Your task to perform on an android device: turn off notifications in google photos Image 0: 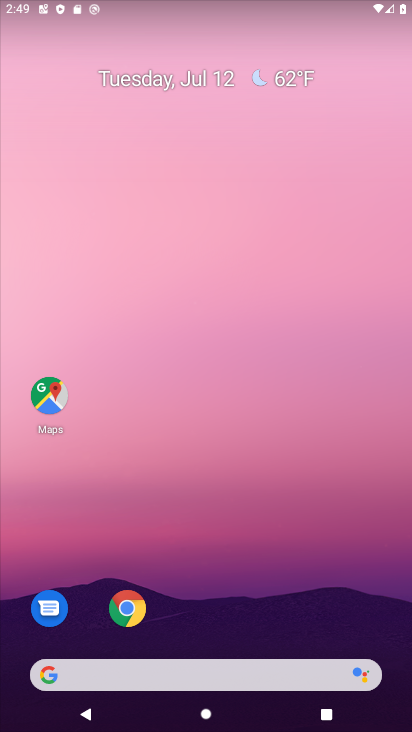
Step 0: press home button
Your task to perform on an android device: turn off notifications in google photos Image 1: 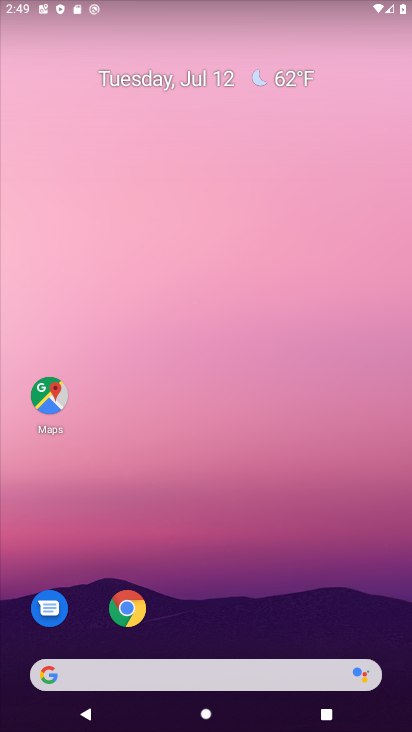
Step 1: drag from (178, 680) to (362, 83)
Your task to perform on an android device: turn off notifications in google photos Image 2: 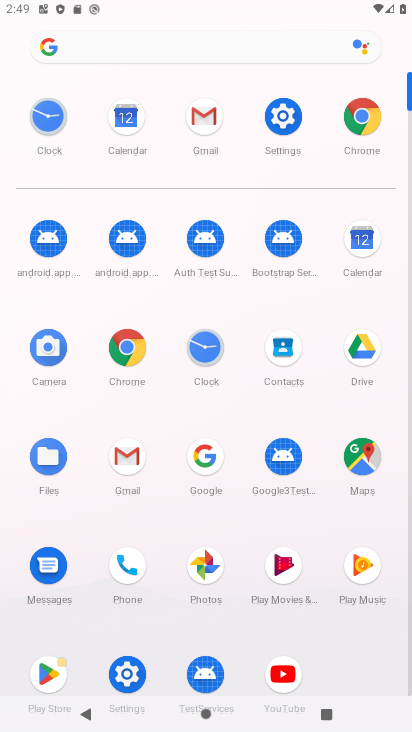
Step 2: click (208, 562)
Your task to perform on an android device: turn off notifications in google photos Image 3: 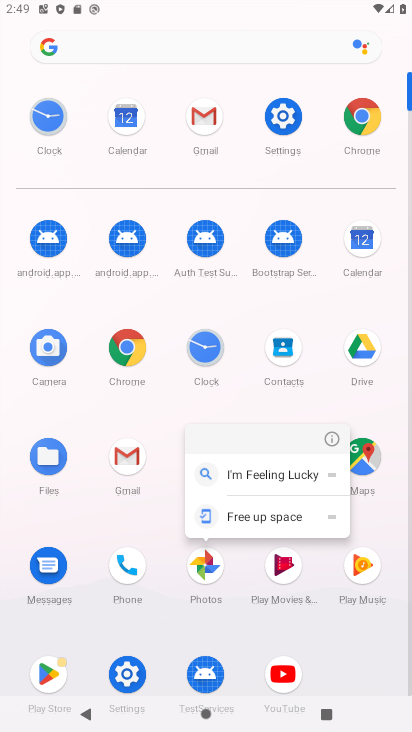
Step 3: click (210, 568)
Your task to perform on an android device: turn off notifications in google photos Image 4: 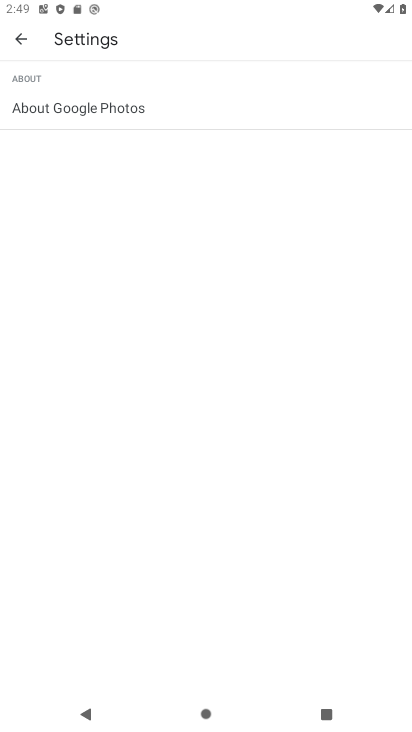
Step 4: task complete